Your task to perform on an android device: set an alarm Image 0: 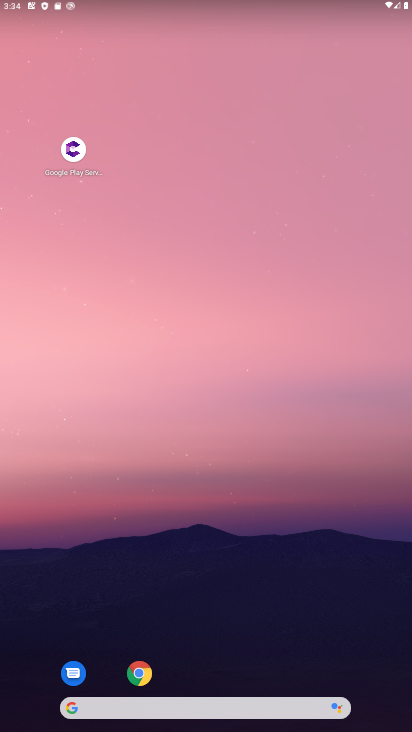
Step 0: drag from (226, 670) to (153, 113)
Your task to perform on an android device: set an alarm Image 1: 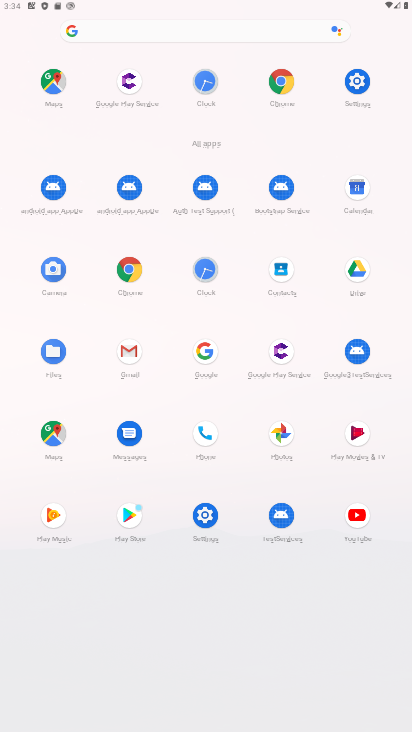
Step 1: click (211, 273)
Your task to perform on an android device: set an alarm Image 2: 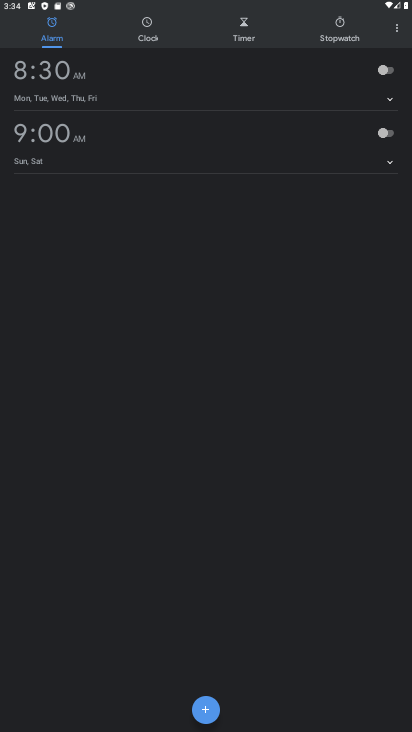
Step 2: click (208, 715)
Your task to perform on an android device: set an alarm Image 3: 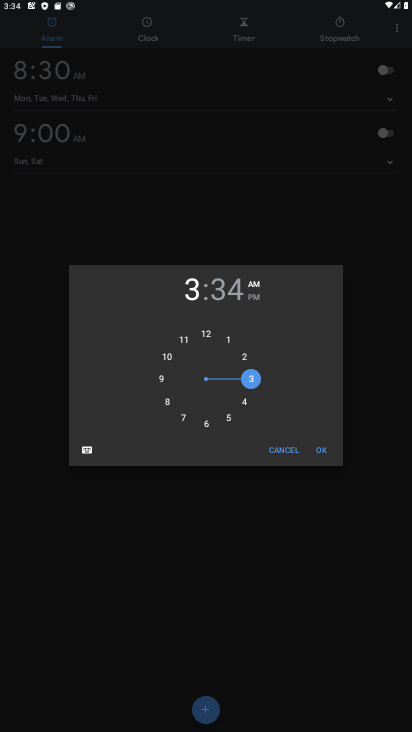
Step 3: click (321, 451)
Your task to perform on an android device: set an alarm Image 4: 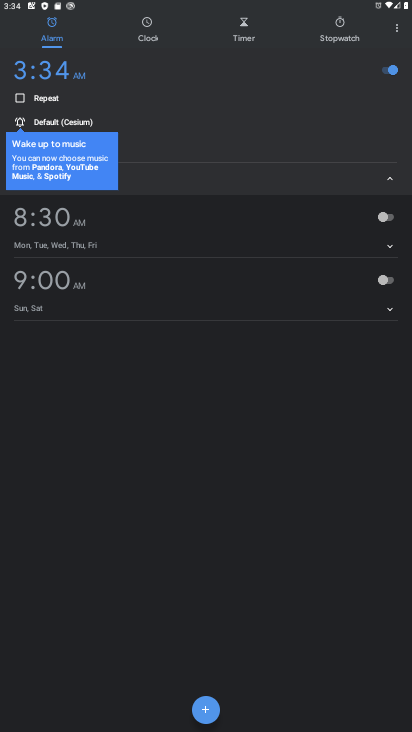
Step 4: click (388, 183)
Your task to perform on an android device: set an alarm Image 5: 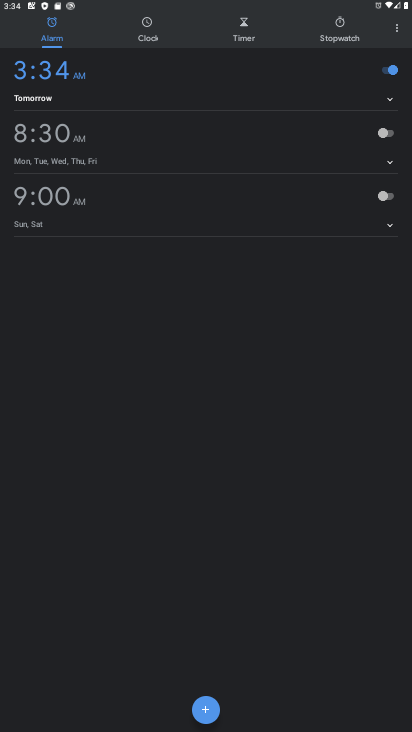
Step 5: task complete